Your task to perform on an android device: change the clock display to analog Image 0: 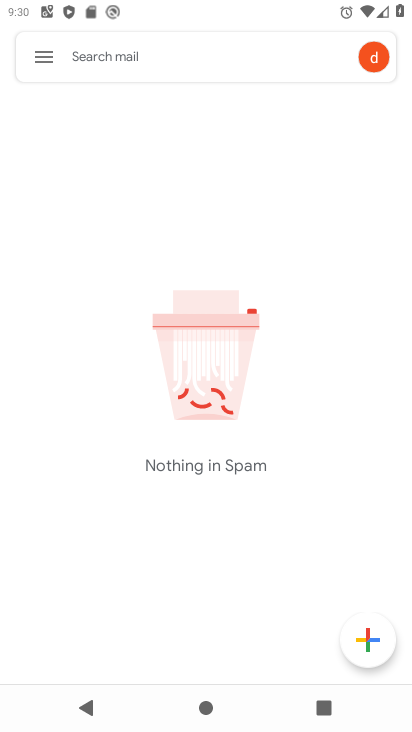
Step 0: press home button
Your task to perform on an android device: change the clock display to analog Image 1: 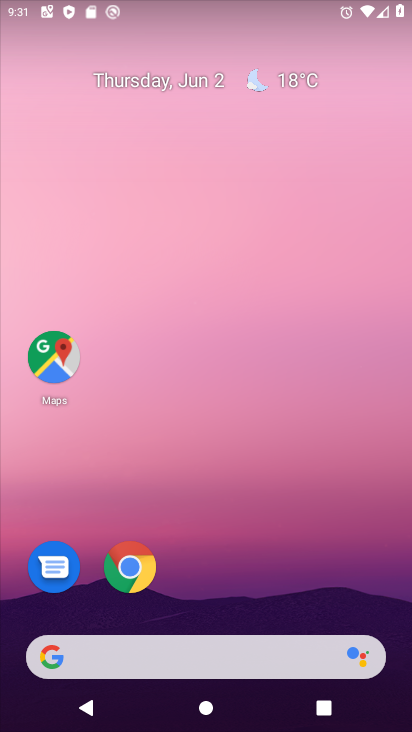
Step 1: drag from (218, 617) to (218, 46)
Your task to perform on an android device: change the clock display to analog Image 2: 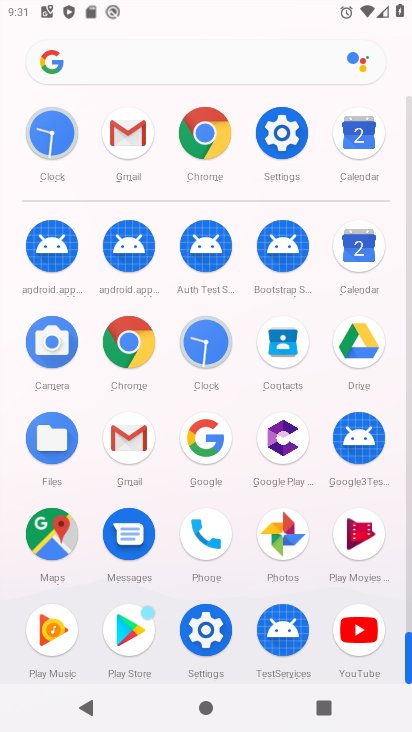
Step 2: click (49, 126)
Your task to perform on an android device: change the clock display to analog Image 3: 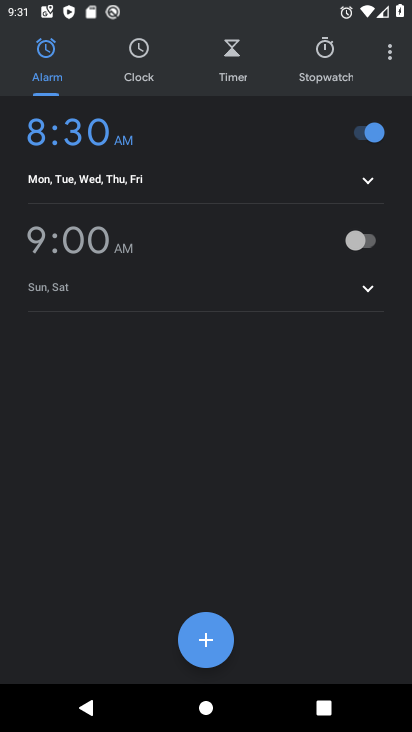
Step 3: click (391, 44)
Your task to perform on an android device: change the clock display to analog Image 4: 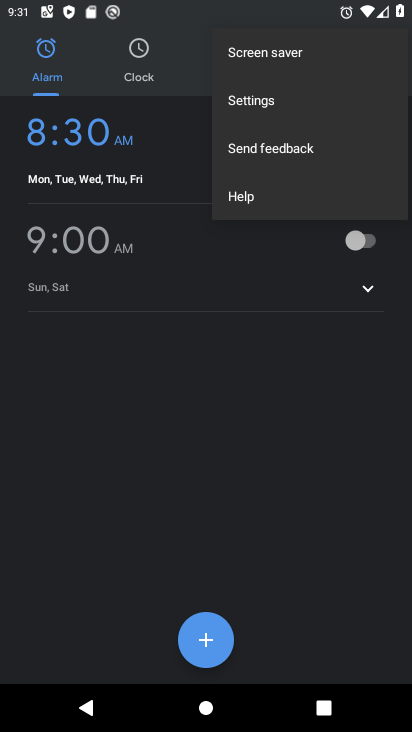
Step 4: click (278, 100)
Your task to perform on an android device: change the clock display to analog Image 5: 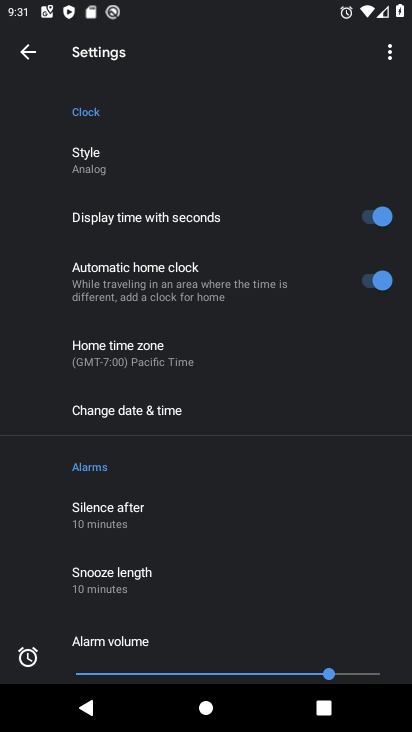
Step 5: task complete